Your task to perform on an android device: install app "Google Play Games" Image 0: 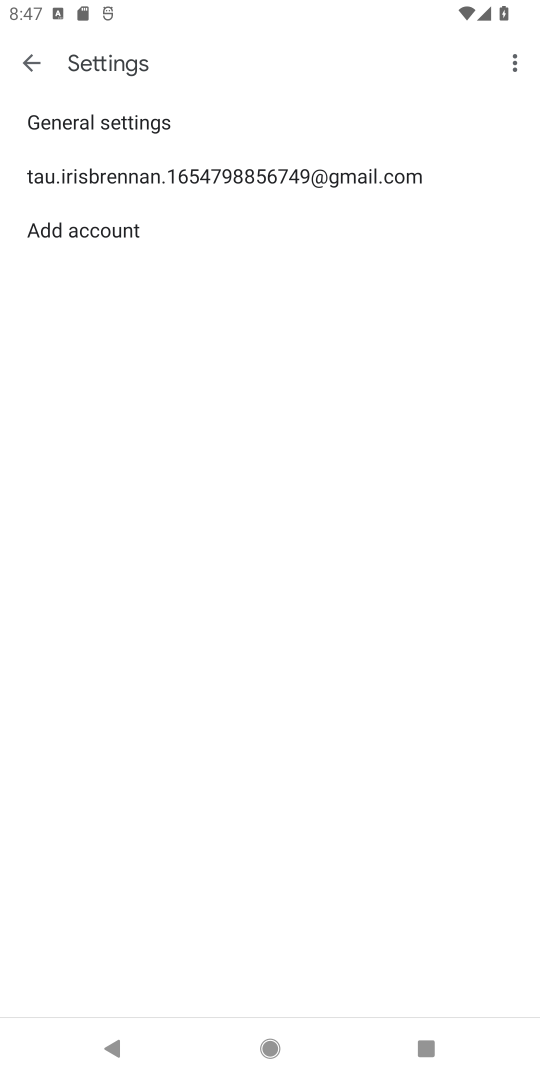
Step 0: press home button
Your task to perform on an android device: install app "Google Play Games" Image 1: 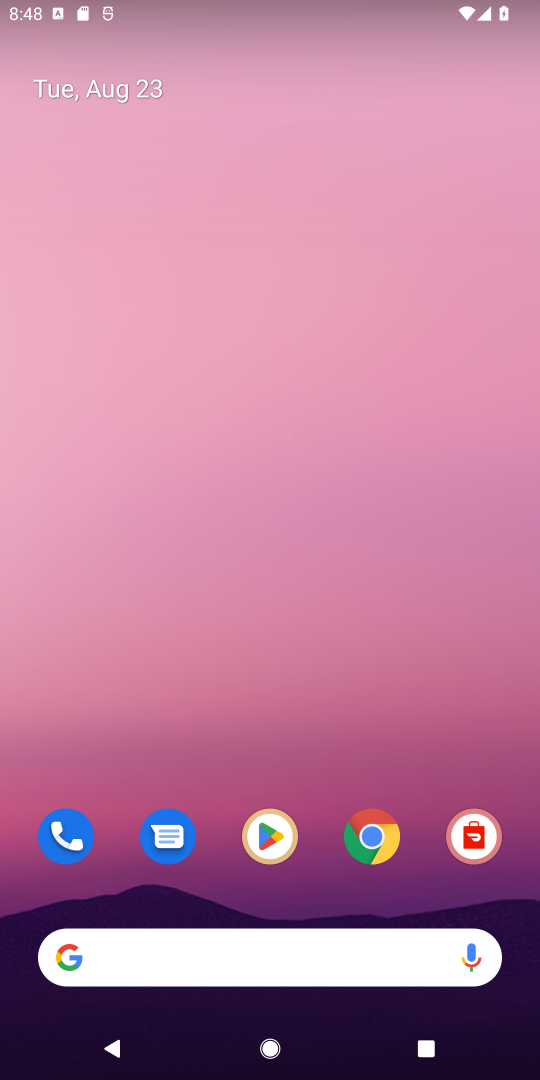
Step 1: click (263, 834)
Your task to perform on an android device: install app "Google Play Games" Image 2: 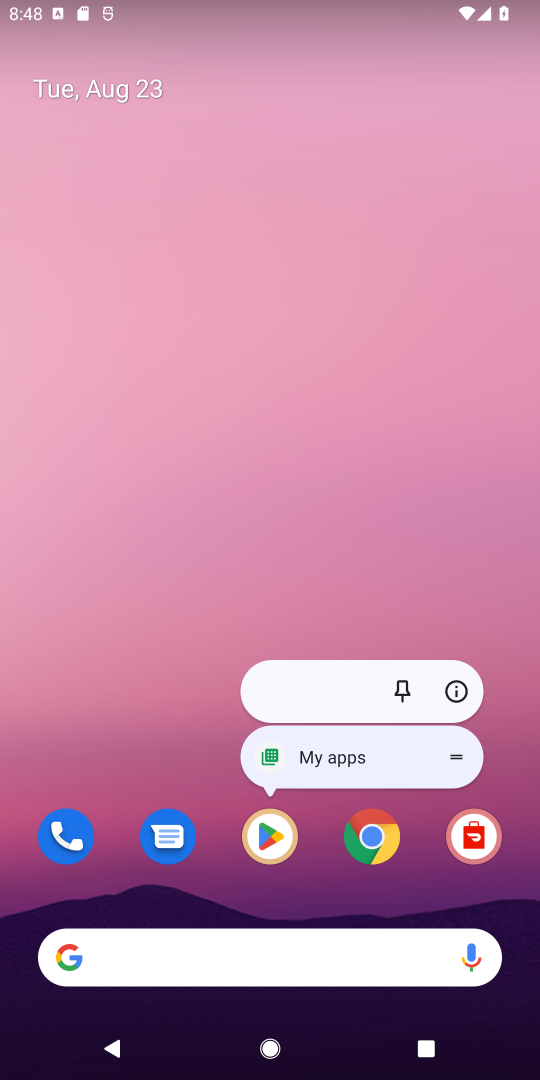
Step 2: click (263, 835)
Your task to perform on an android device: install app "Google Play Games" Image 3: 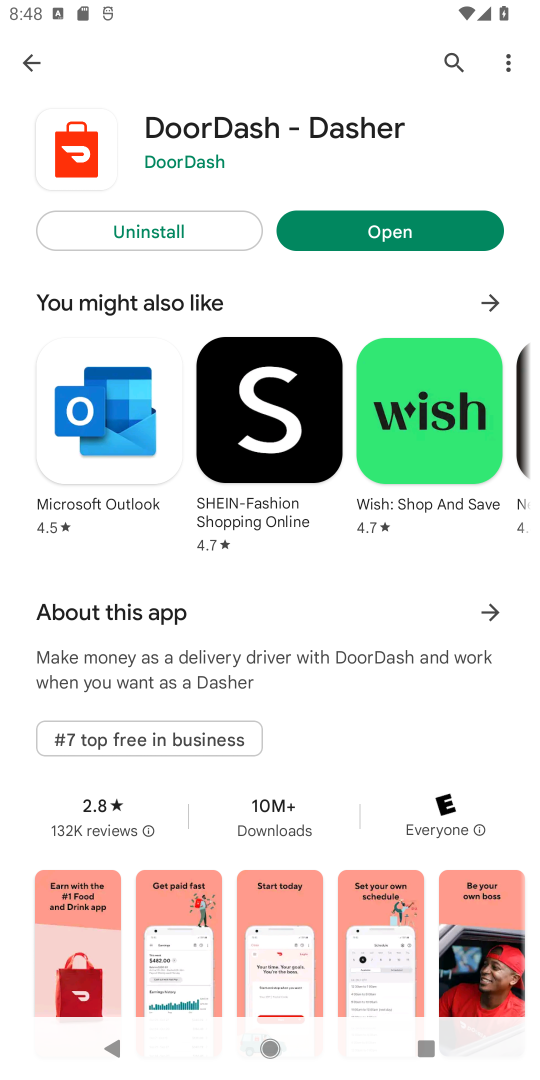
Step 3: click (456, 59)
Your task to perform on an android device: install app "Google Play Games" Image 4: 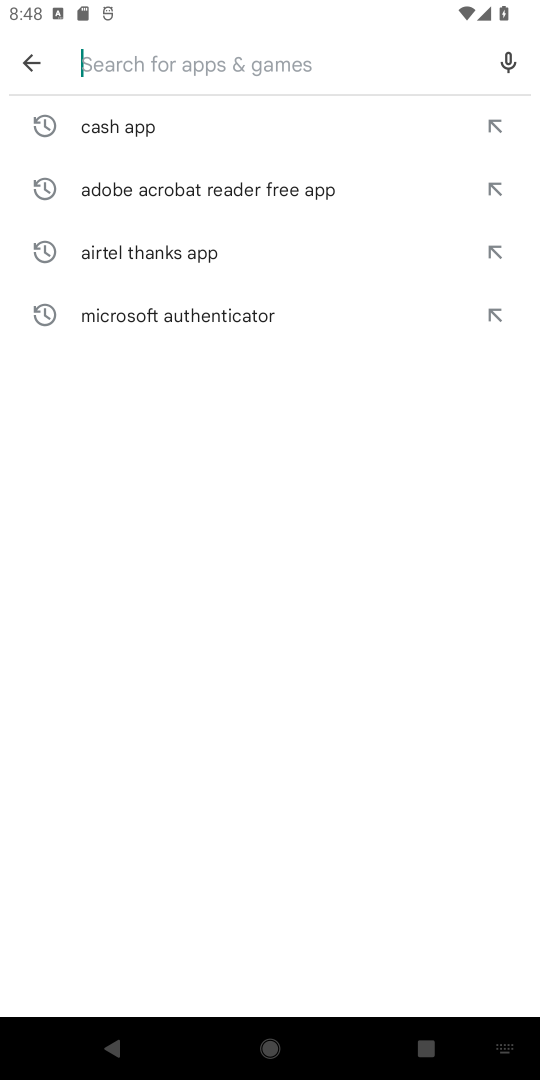
Step 4: type "Google Play Games"
Your task to perform on an android device: install app "Google Play Games" Image 5: 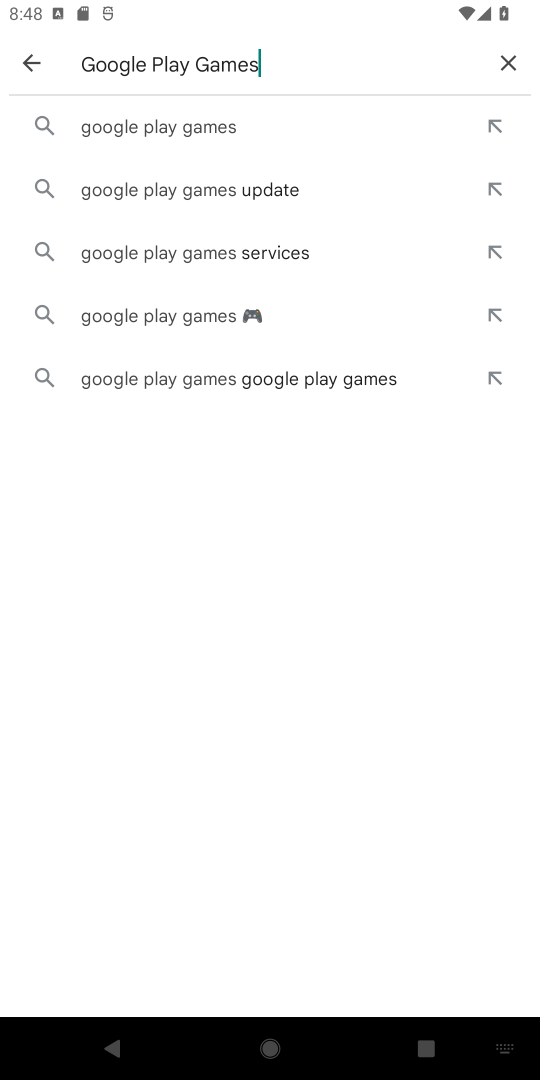
Step 5: click (197, 129)
Your task to perform on an android device: install app "Google Play Games" Image 6: 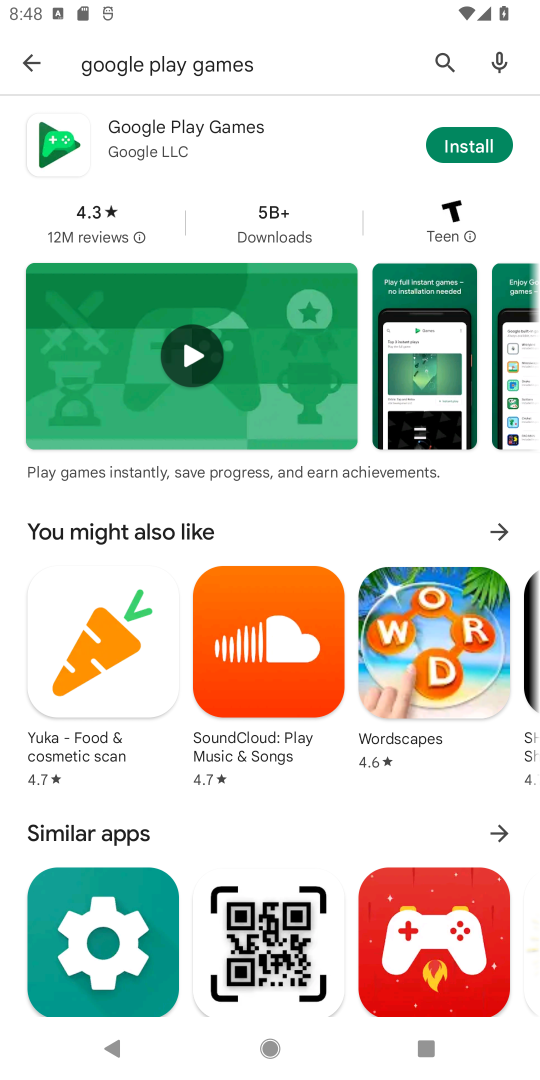
Step 6: click (485, 151)
Your task to perform on an android device: install app "Google Play Games" Image 7: 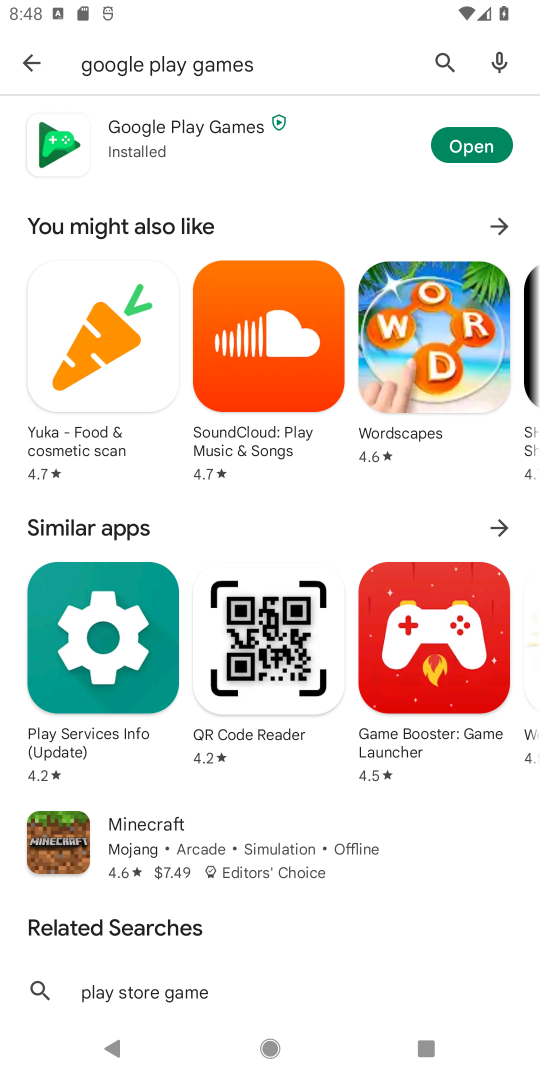
Step 7: task complete